Your task to perform on an android device: move a message to another label in the gmail app Image 0: 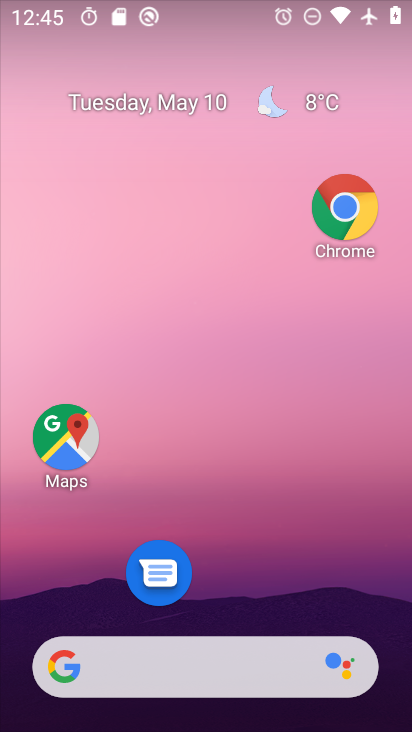
Step 0: drag from (247, 394) to (198, 9)
Your task to perform on an android device: move a message to another label in the gmail app Image 1: 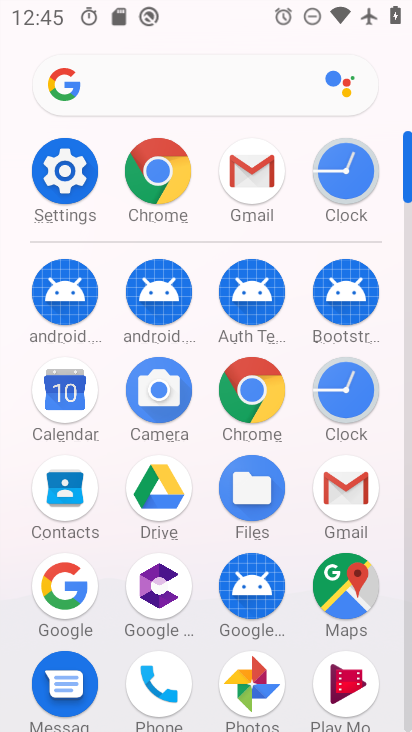
Step 1: click (358, 481)
Your task to perform on an android device: move a message to another label in the gmail app Image 2: 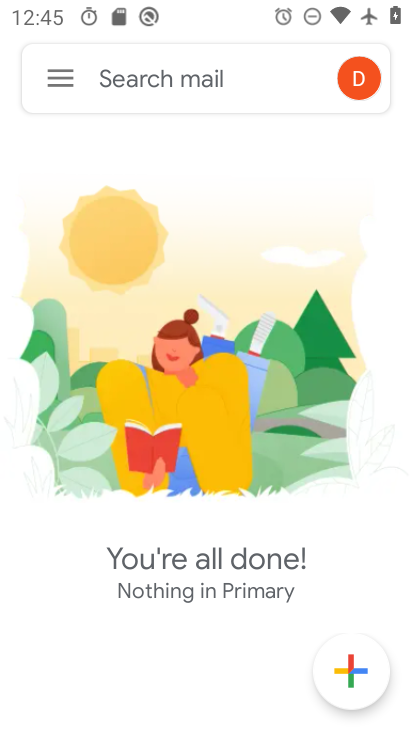
Step 2: click (46, 74)
Your task to perform on an android device: move a message to another label in the gmail app Image 3: 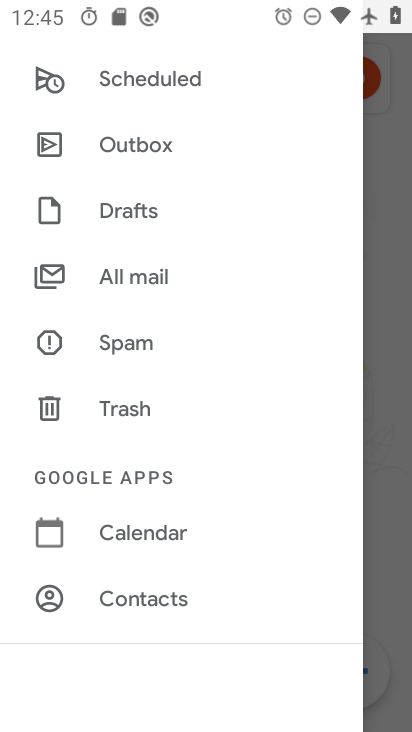
Step 3: drag from (211, 533) to (178, 183)
Your task to perform on an android device: move a message to another label in the gmail app Image 4: 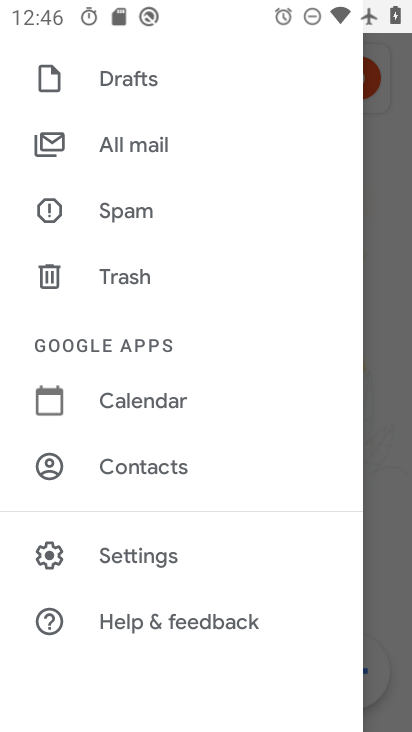
Step 4: drag from (238, 231) to (195, 638)
Your task to perform on an android device: move a message to another label in the gmail app Image 5: 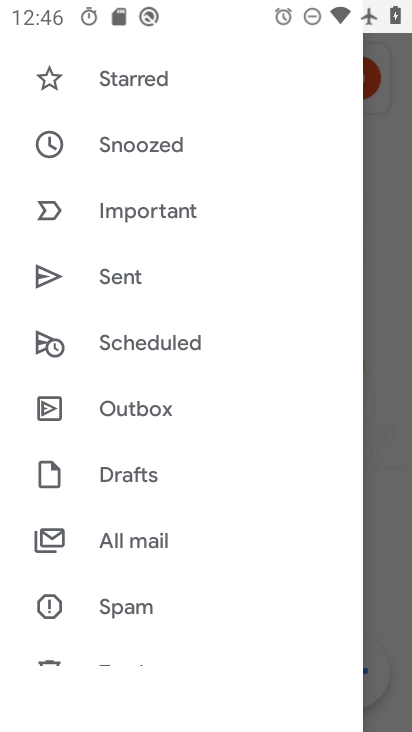
Step 5: click (157, 523)
Your task to perform on an android device: move a message to another label in the gmail app Image 6: 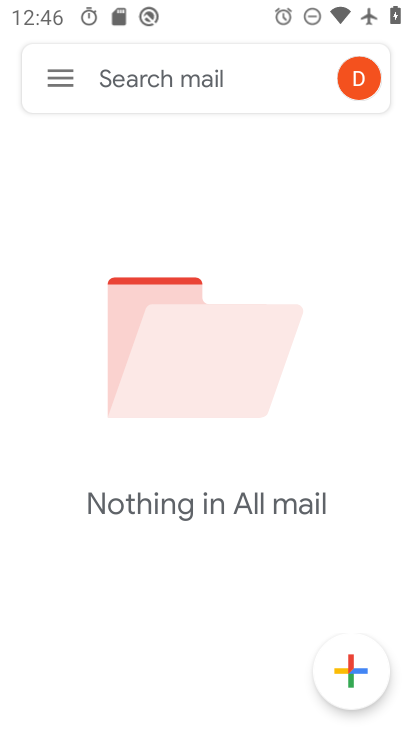
Step 6: task complete